Your task to perform on an android device: Go to sound settings Image 0: 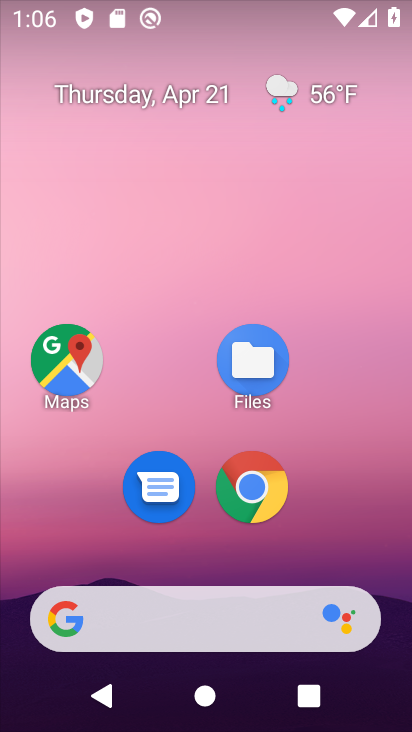
Step 0: drag from (379, 513) to (362, 134)
Your task to perform on an android device: Go to sound settings Image 1: 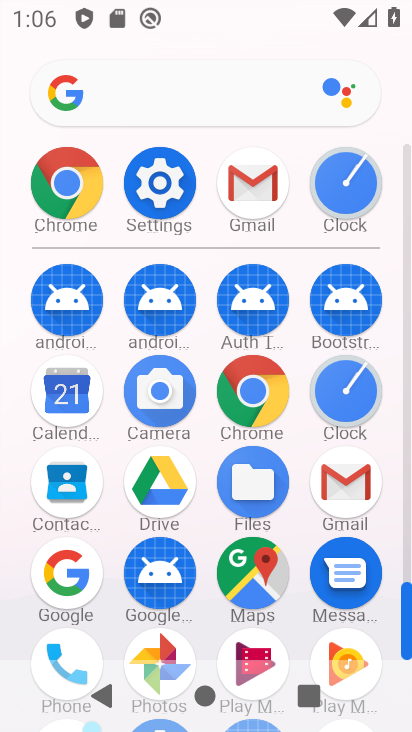
Step 1: click (151, 172)
Your task to perform on an android device: Go to sound settings Image 2: 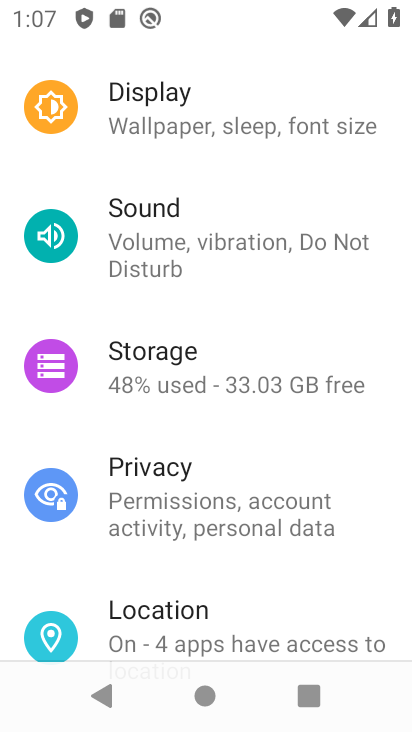
Step 2: click (233, 238)
Your task to perform on an android device: Go to sound settings Image 3: 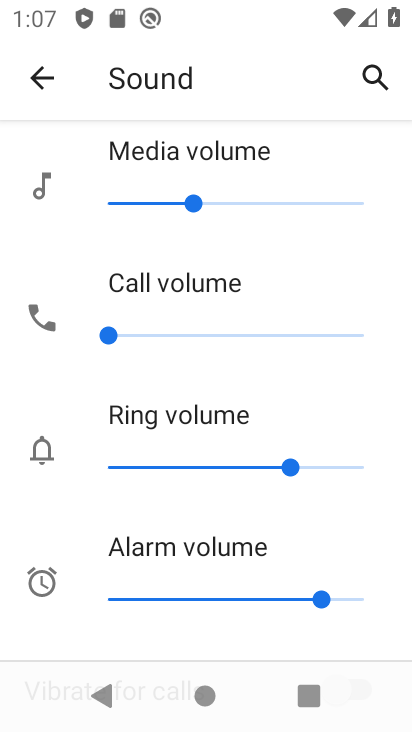
Step 3: task complete